Your task to perform on an android device: open the mobile data screen to see how much data has been used Image 0: 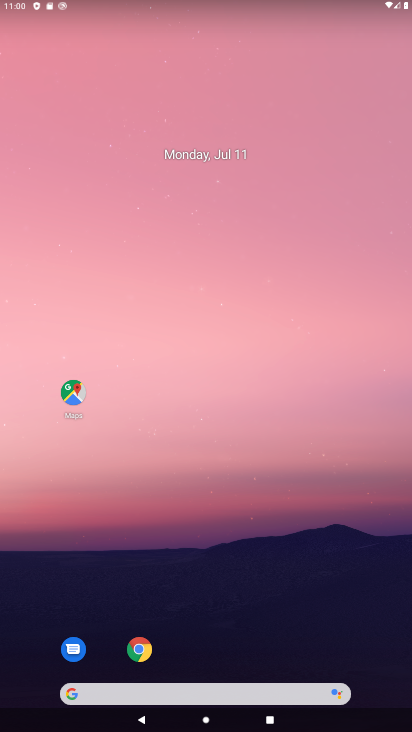
Step 0: drag from (197, 687) to (238, 92)
Your task to perform on an android device: open the mobile data screen to see how much data has been used Image 1: 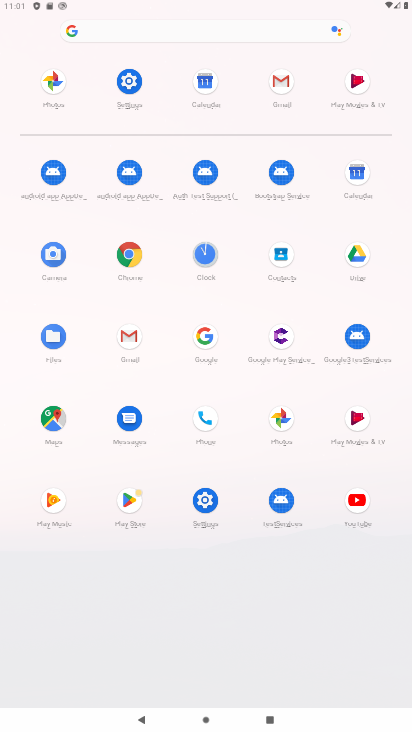
Step 1: click (127, 77)
Your task to perform on an android device: open the mobile data screen to see how much data has been used Image 2: 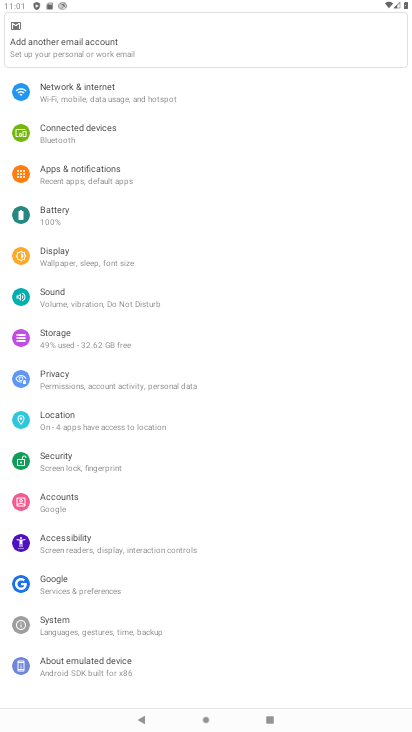
Step 2: click (109, 90)
Your task to perform on an android device: open the mobile data screen to see how much data has been used Image 3: 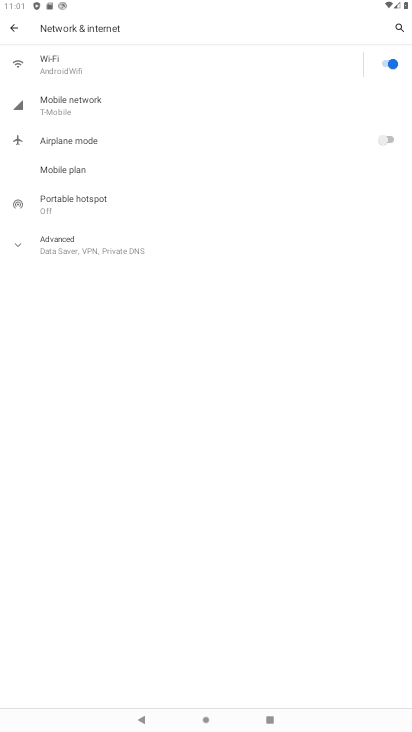
Step 3: click (95, 104)
Your task to perform on an android device: open the mobile data screen to see how much data has been used Image 4: 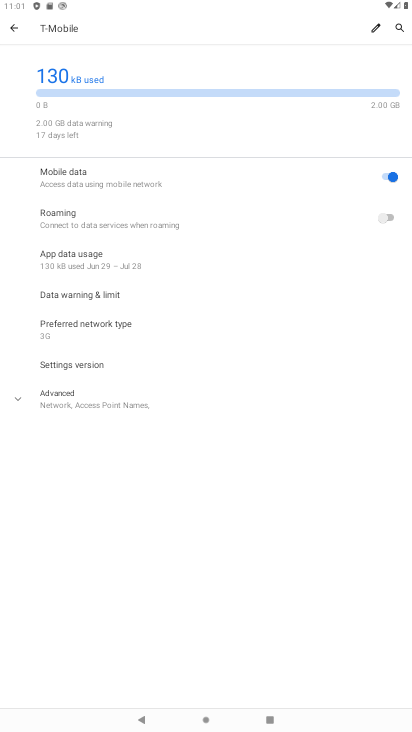
Step 4: task complete